Your task to perform on an android device: set an alarm Image 0: 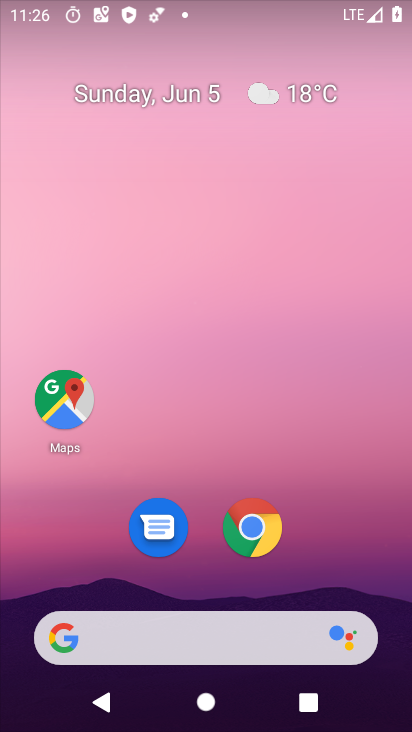
Step 0: drag from (255, 309) to (211, 2)
Your task to perform on an android device: set an alarm Image 1: 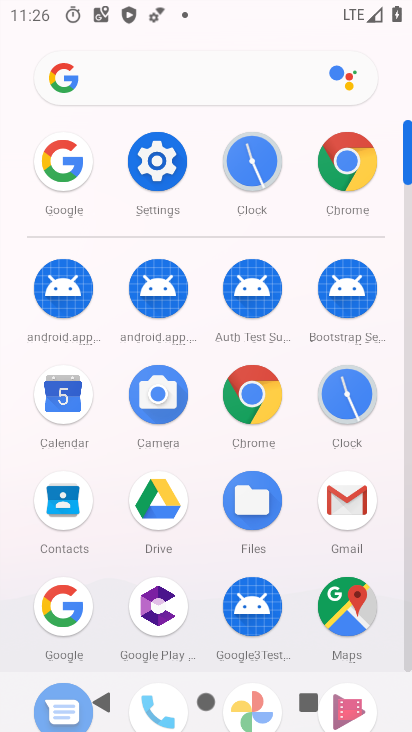
Step 1: click (260, 170)
Your task to perform on an android device: set an alarm Image 2: 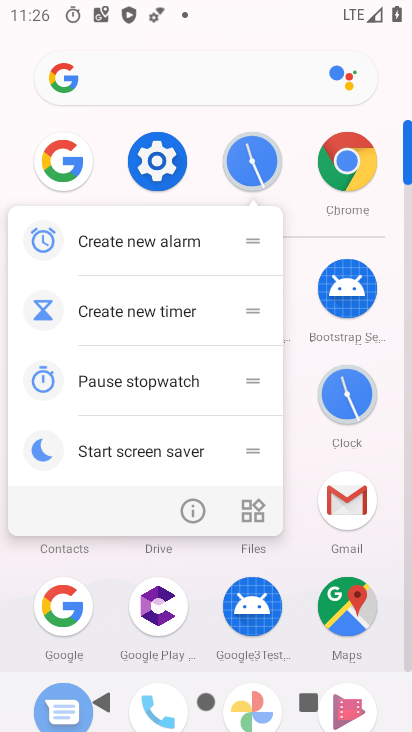
Step 2: click (262, 163)
Your task to perform on an android device: set an alarm Image 3: 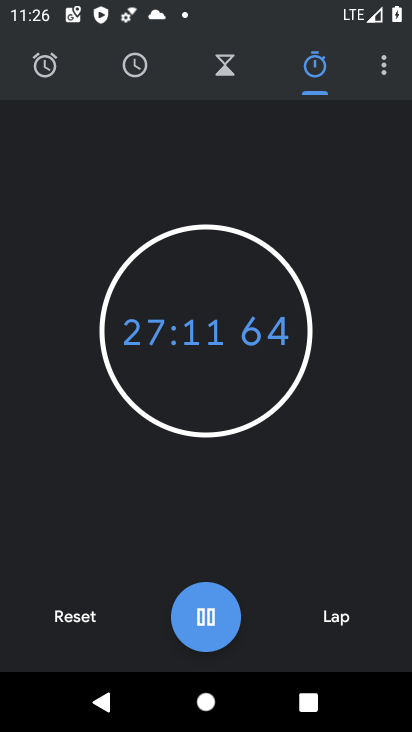
Step 3: click (44, 72)
Your task to perform on an android device: set an alarm Image 4: 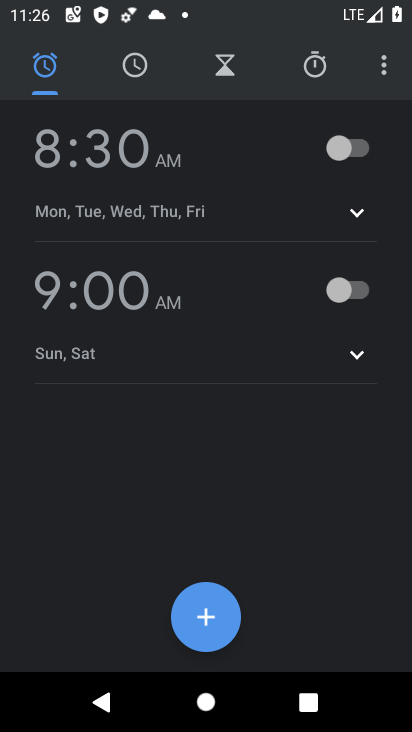
Step 4: click (354, 151)
Your task to perform on an android device: set an alarm Image 5: 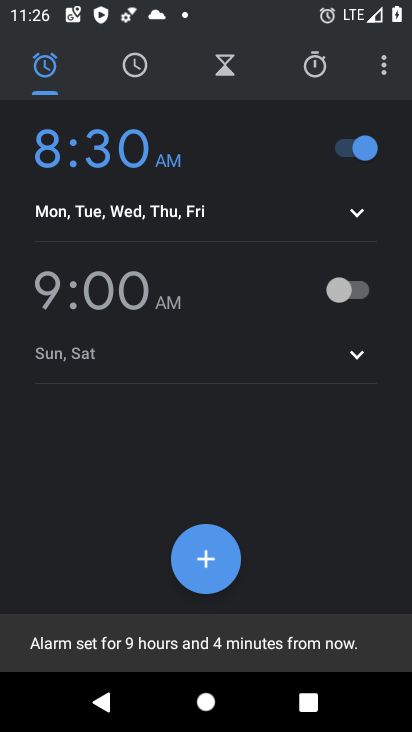
Step 5: task complete